Your task to perform on an android device: Search for bose soundlink on amazon.com, select the first entry, and add it to the cart. Image 0: 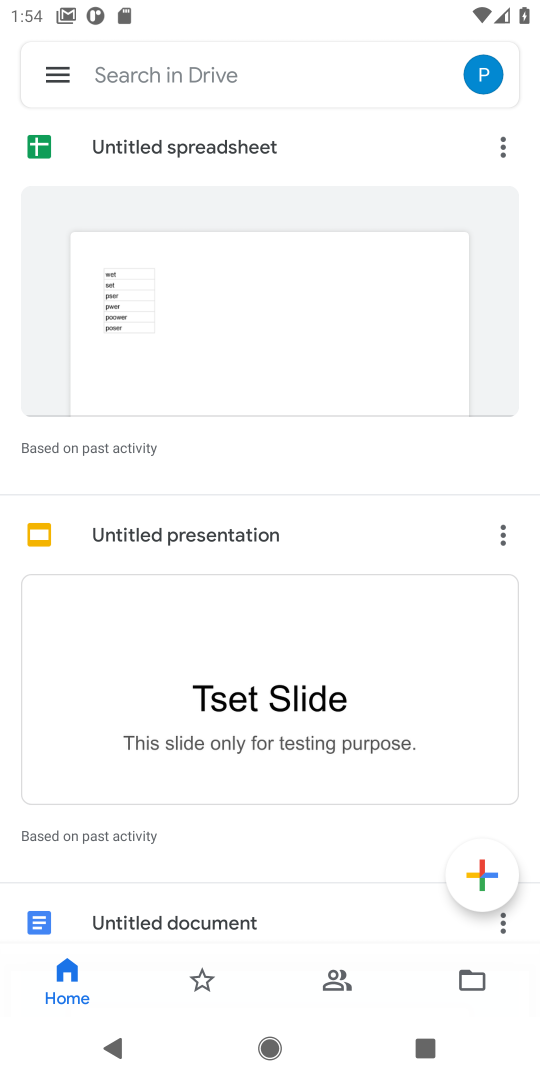
Step 0: press home button
Your task to perform on an android device: Search for bose soundlink on amazon.com, select the first entry, and add it to the cart. Image 1: 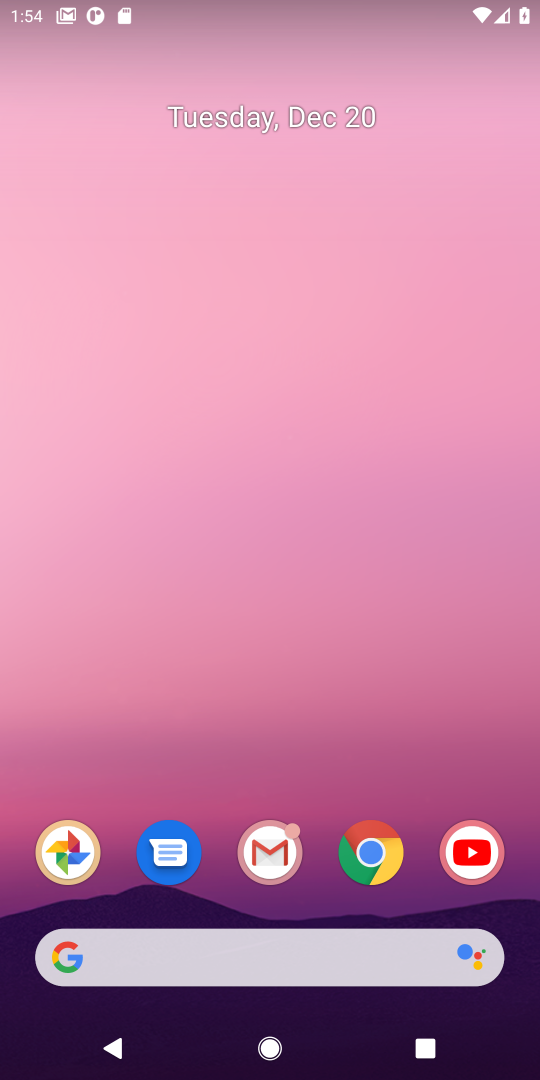
Step 1: click (355, 861)
Your task to perform on an android device: Search for bose soundlink on amazon.com, select the first entry, and add it to the cart. Image 2: 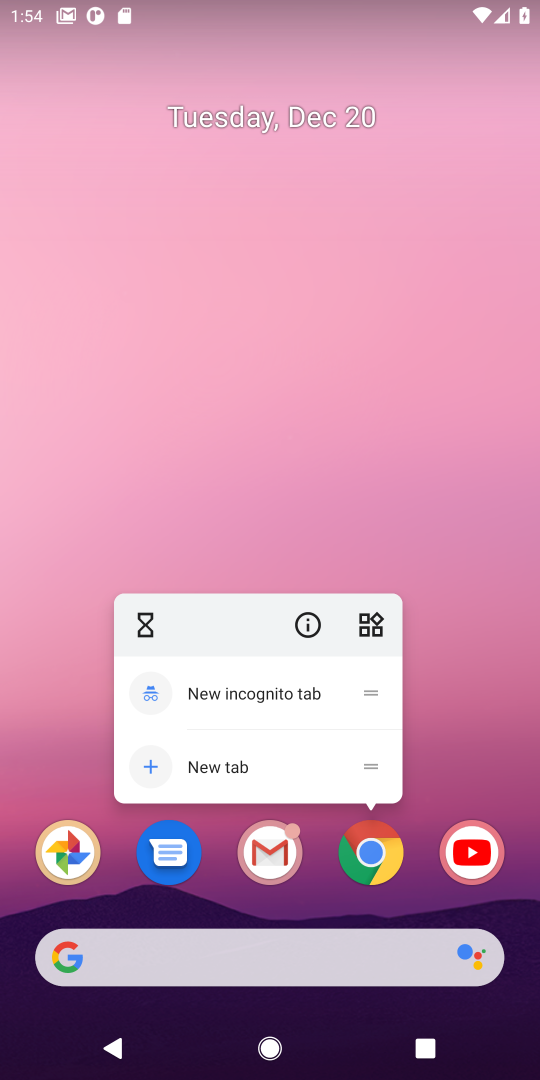
Step 2: click (373, 853)
Your task to perform on an android device: Search for bose soundlink on amazon.com, select the first entry, and add it to the cart. Image 3: 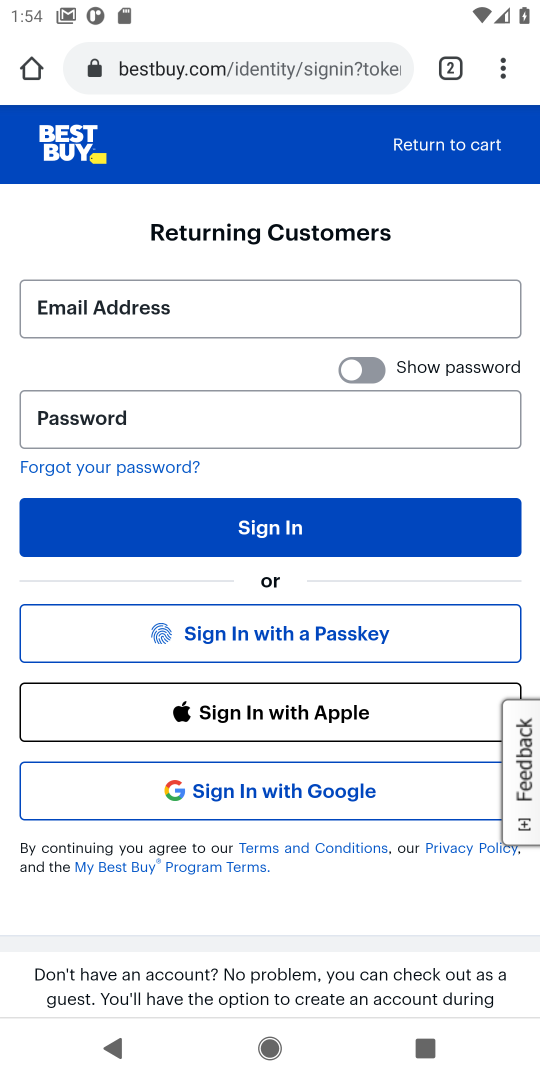
Step 3: click (205, 72)
Your task to perform on an android device: Search for bose soundlink on amazon.com, select the first entry, and add it to the cart. Image 4: 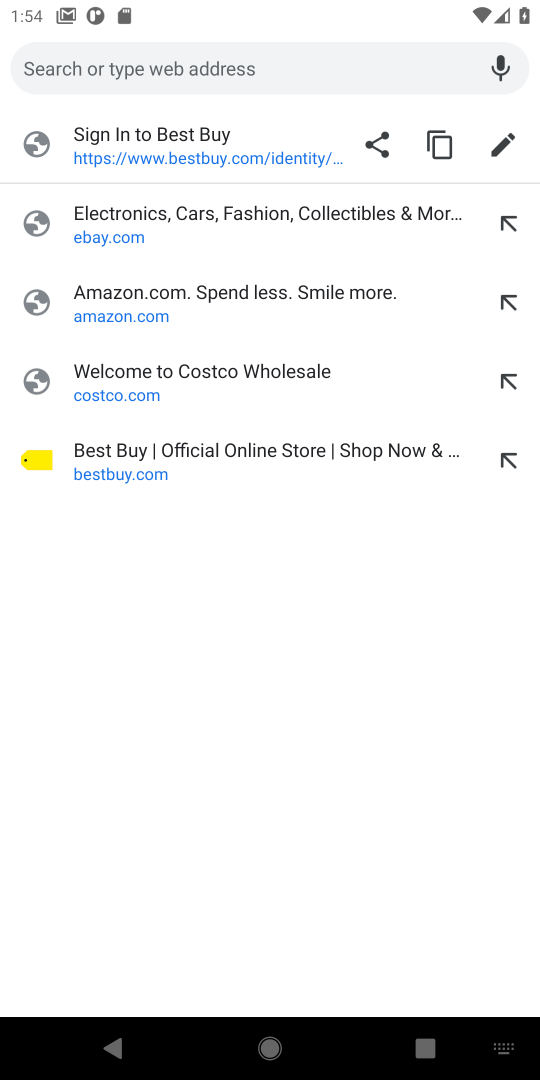
Step 4: click (112, 323)
Your task to perform on an android device: Search for bose soundlink on amazon.com, select the first entry, and add it to the cart. Image 5: 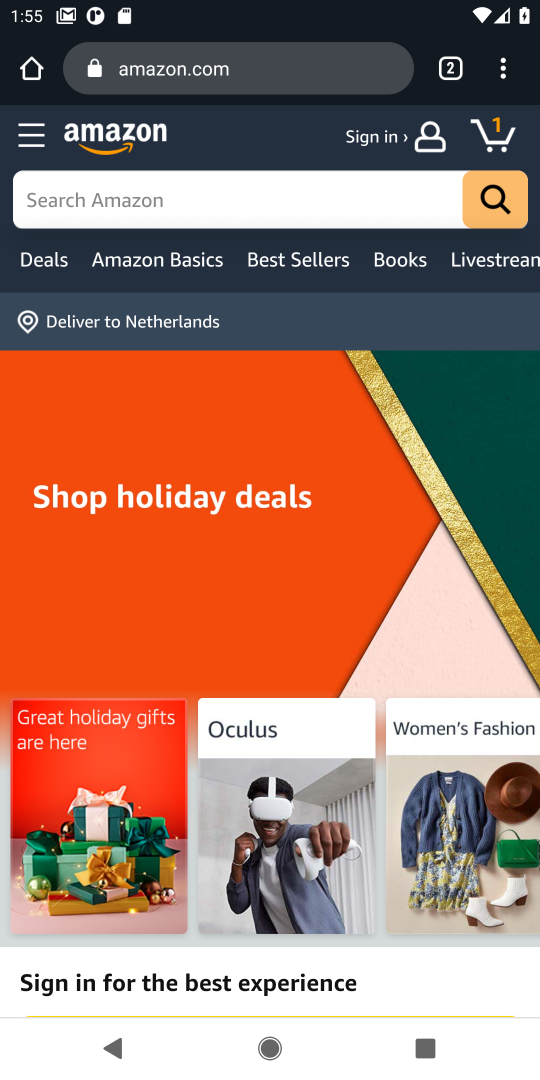
Step 5: click (63, 187)
Your task to perform on an android device: Search for bose soundlink on amazon.com, select the first entry, and add it to the cart. Image 6: 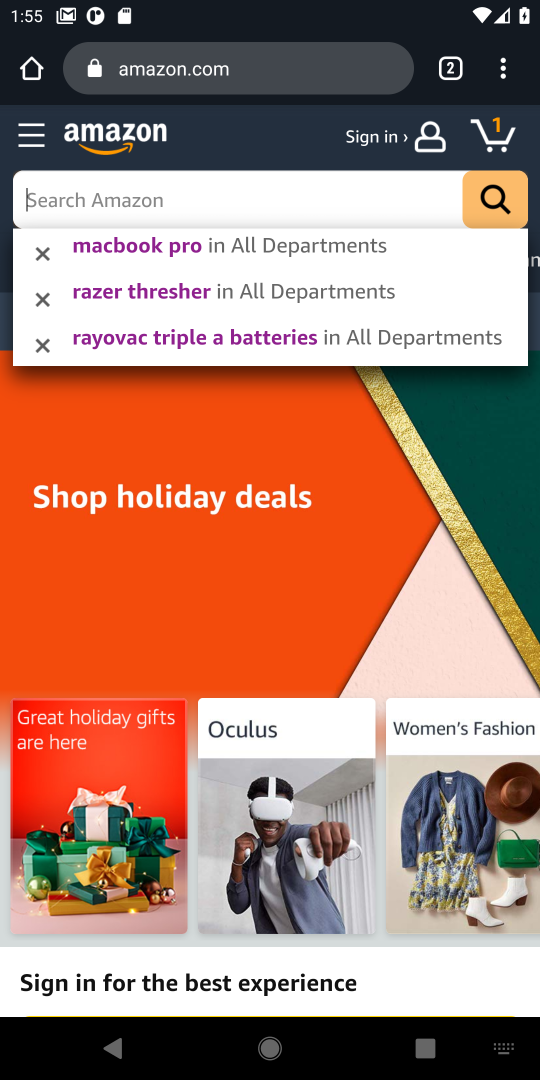
Step 6: type "bose soundlink "
Your task to perform on an android device: Search for bose soundlink on amazon.com, select the first entry, and add it to the cart. Image 7: 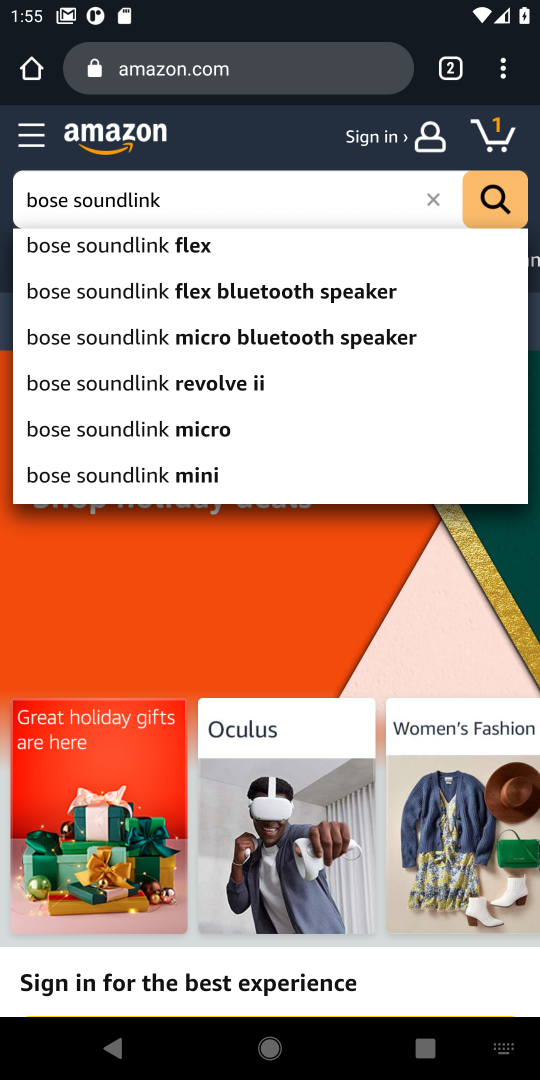
Step 7: click (502, 205)
Your task to perform on an android device: Search for bose soundlink on amazon.com, select the first entry, and add it to the cart. Image 8: 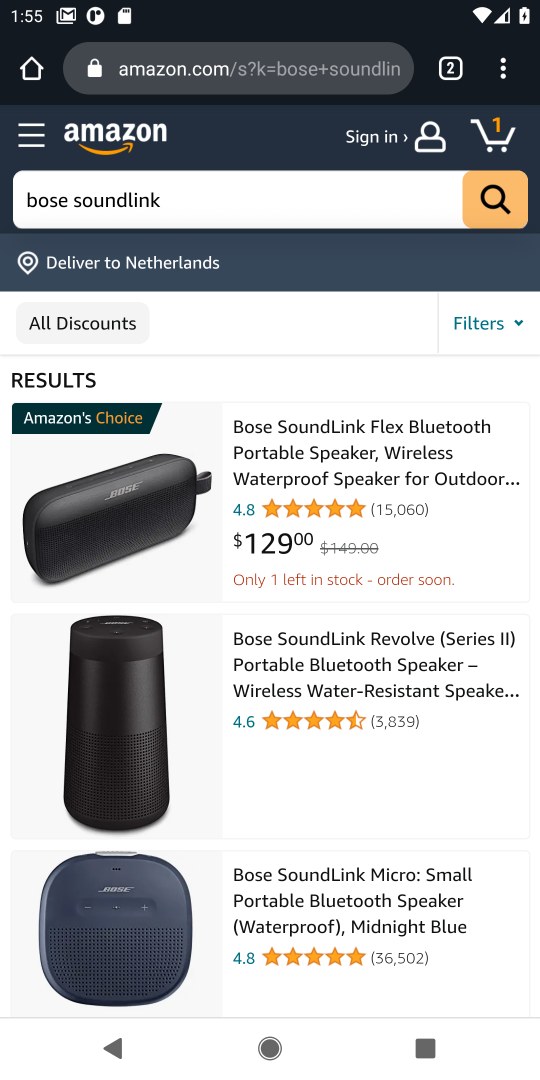
Step 8: click (306, 468)
Your task to perform on an android device: Search for bose soundlink on amazon.com, select the first entry, and add it to the cart. Image 9: 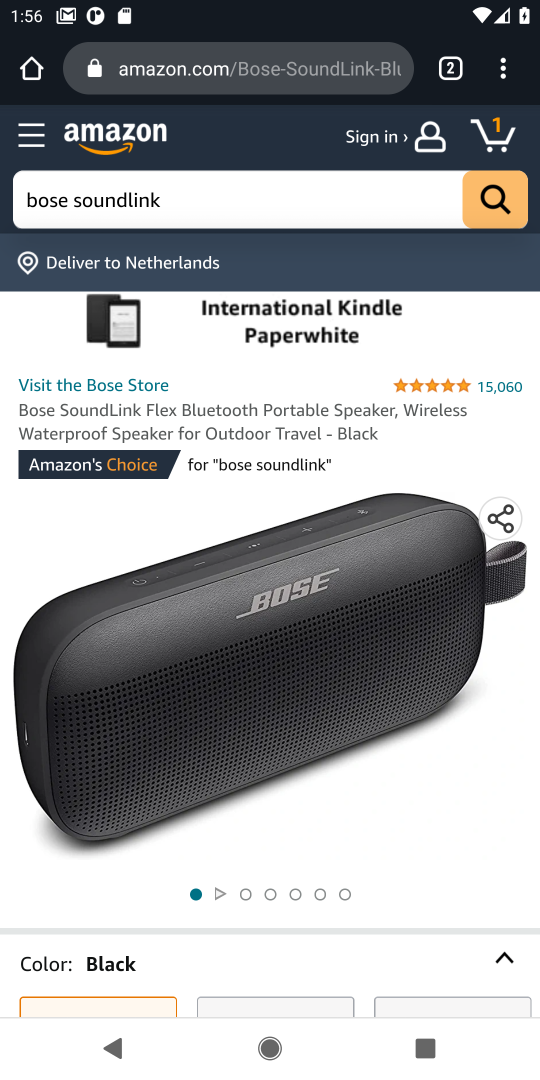
Step 9: task complete